Your task to perform on an android device: Search for a new lawnmower on Lowes. Image 0: 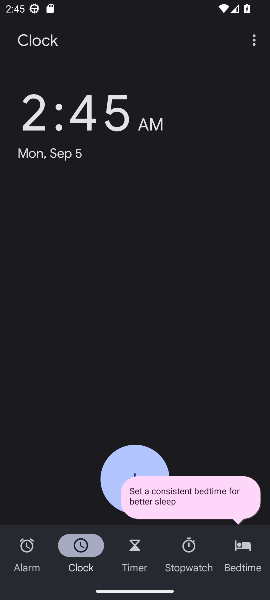
Step 0: press home button
Your task to perform on an android device: Search for a new lawnmower on Lowes. Image 1: 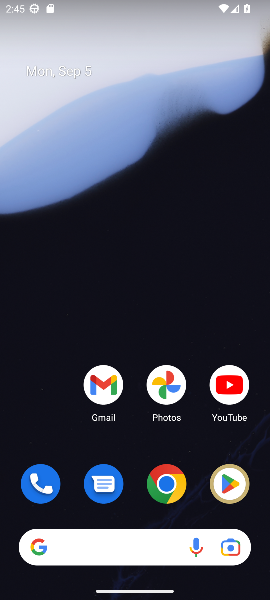
Step 1: click (161, 476)
Your task to perform on an android device: Search for a new lawnmower on Lowes. Image 2: 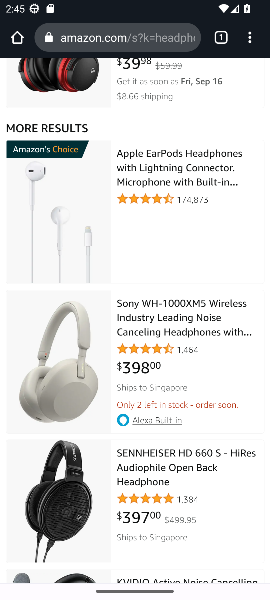
Step 2: click (136, 38)
Your task to perform on an android device: Search for a new lawnmower on Lowes. Image 3: 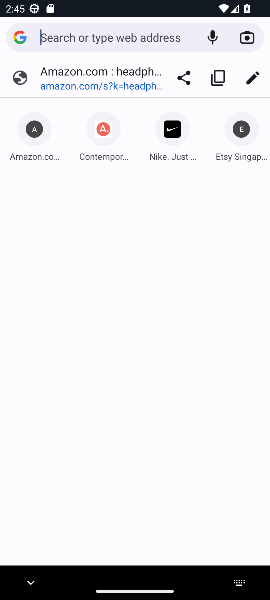
Step 3: type "Lowes"
Your task to perform on an android device: Search for a new lawnmower on Lowes. Image 4: 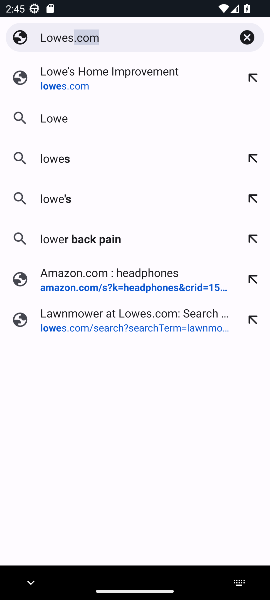
Step 4: press enter
Your task to perform on an android device: Search for a new lawnmower on Lowes. Image 5: 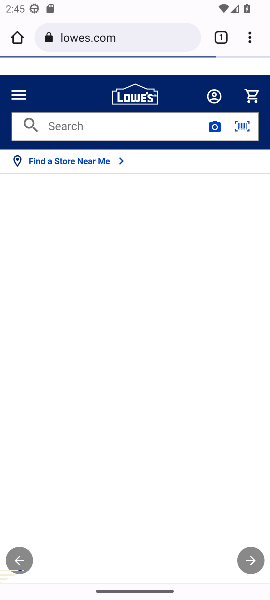
Step 5: click (138, 128)
Your task to perform on an android device: Search for a new lawnmower on Lowes. Image 6: 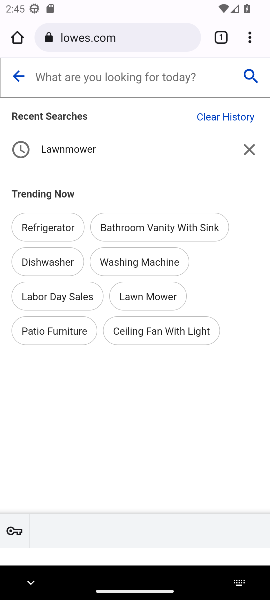
Step 6: click (62, 146)
Your task to perform on an android device: Search for a new lawnmower on Lowes. Image 7: 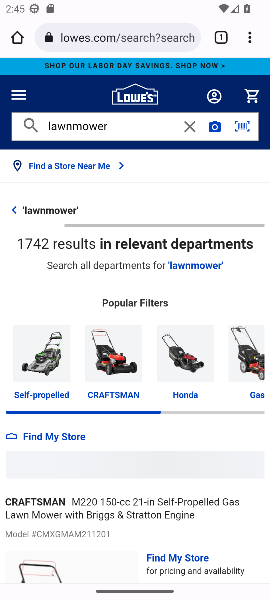
Step 7: drag from (135, 430) to (177, 255)
Your task to perform on an android device: Search for a new lawnmower on Lowes. Image 8: 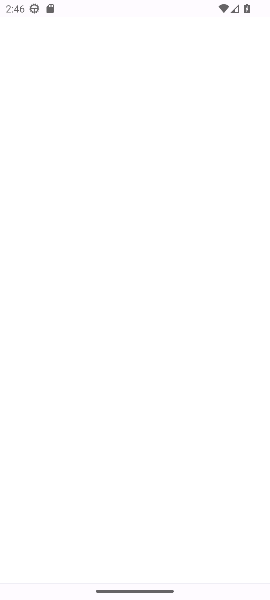
Step 8: click (126, 299)
Your task to perform on an android device: Search for a new lawnmower on Lowes. Image 9: 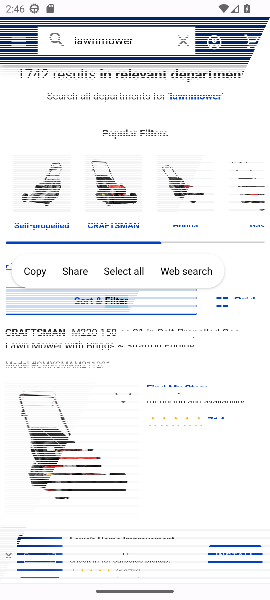
Step 9: task complete